Your task to perform on an android device: Go to CNN.com Image 0: 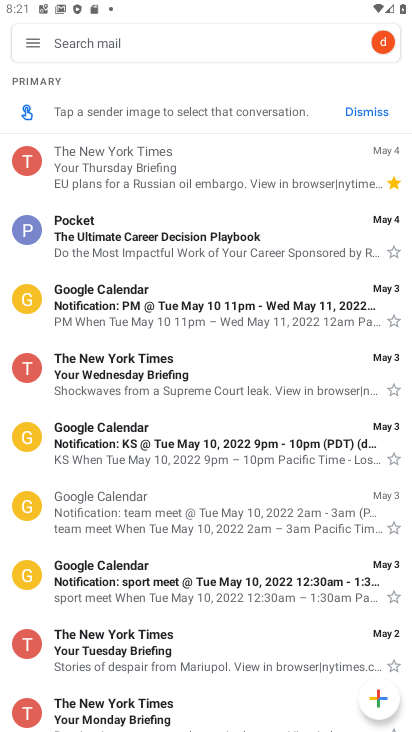
Step 0: press home button
Your task to perform on an android device: Go to CNN.com Image 1: 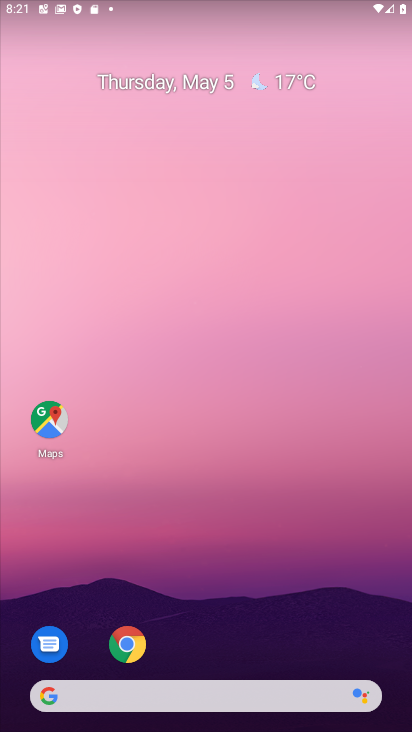
Step 1: click (119, 649)
Your task to perform on an android device: Go to CNN.com Image 2: 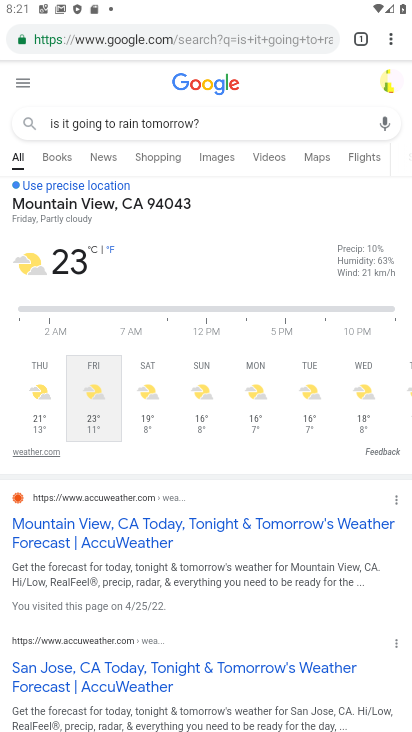
Step 2: click (257, 34)
Your task to perform on an android device: Go to CNN.com Image 3: 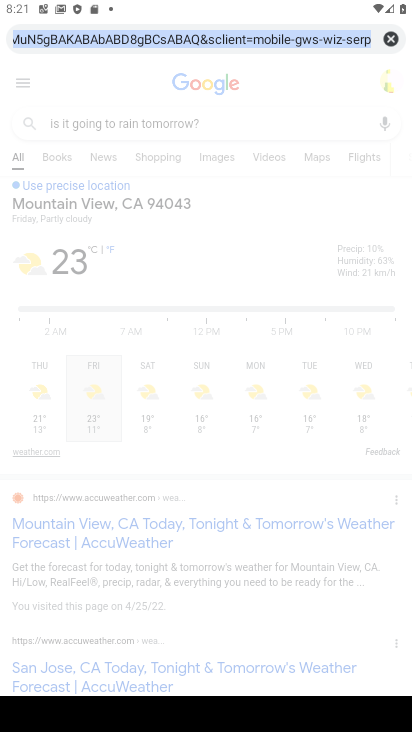
Step 3: type "CNN.com"
Your task to perform on an android device: Go to CNN.com Image 4: 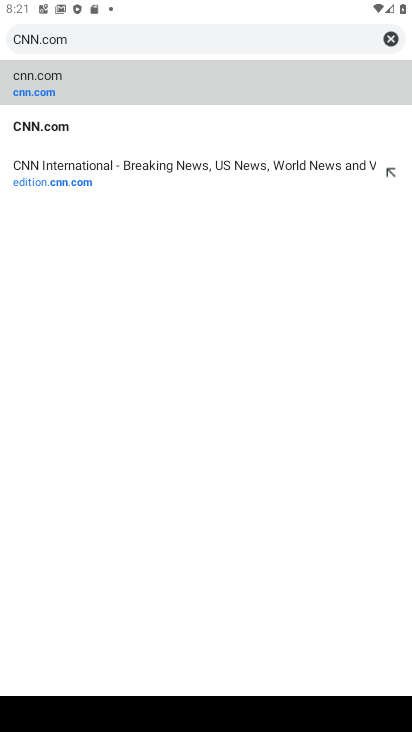
Step 4: click (24, 91)
Your task to perform on an android device: Go to CNN.com Image 5: 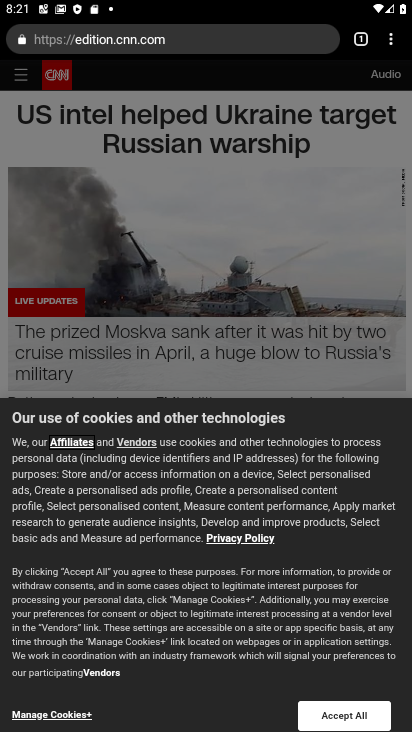
Step 5: task complete